Your task to perform on an android device: allow cookies in the chrome app Image 0: 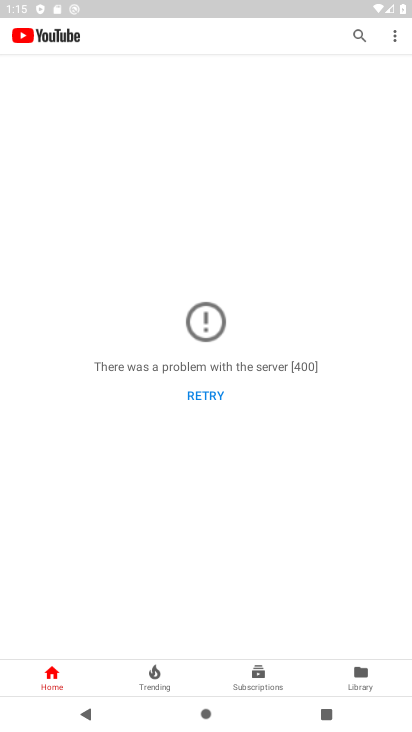
Step 0: press home button
Your task to perform on an android device: allow cookies in the chrome app Image 1: 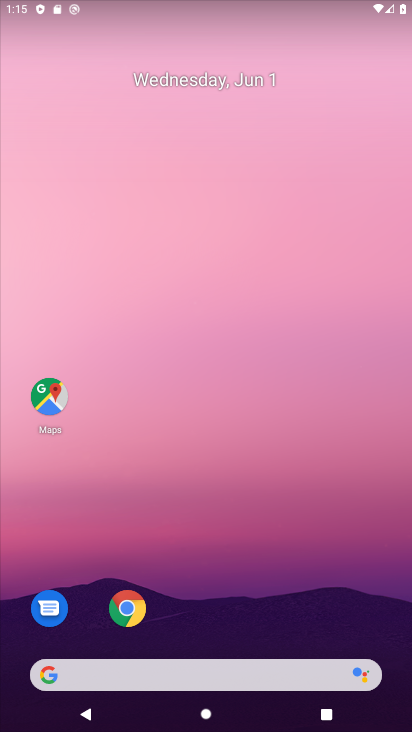
Step 1: click (120, 614)
Your task to perform on an android device: allow cookies in the chrome app Image 2: 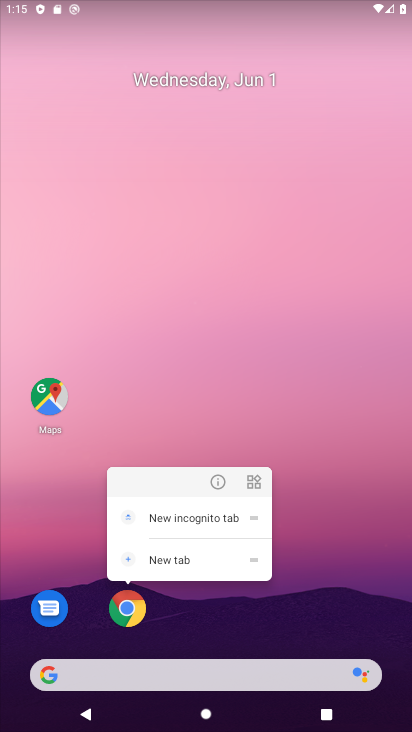
Step 2: click (126, 617)
Your task to perform on an android device: allow cookies in the chrome app Image 3: 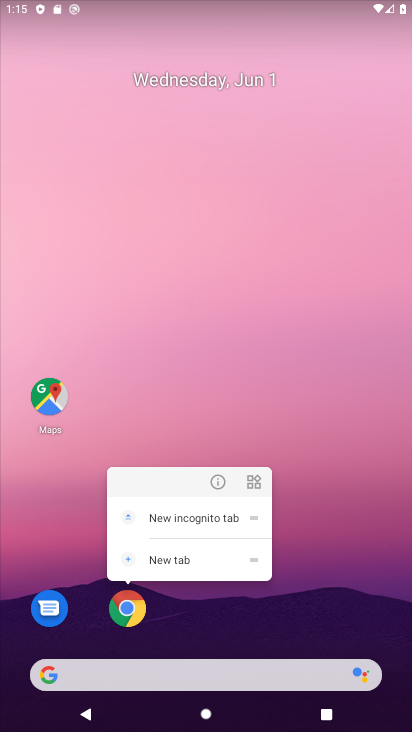
Step 3: click (134, 610)
Your task to perform on an android device: allow cookies in the chrome app Image 4: 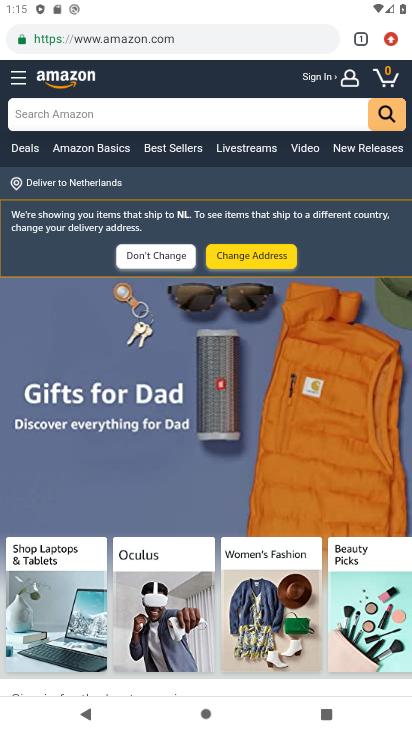
Step 4: click (389, 49)
Your task to perform on an android device: allow cookies in the chrome app Image 5: 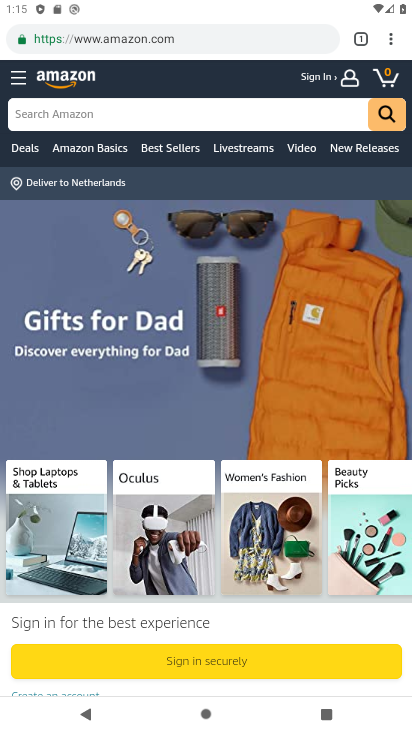
Step 5: click (395, 47)
Your task to perform on an android device: allow cookies in the chrome app Image 6: 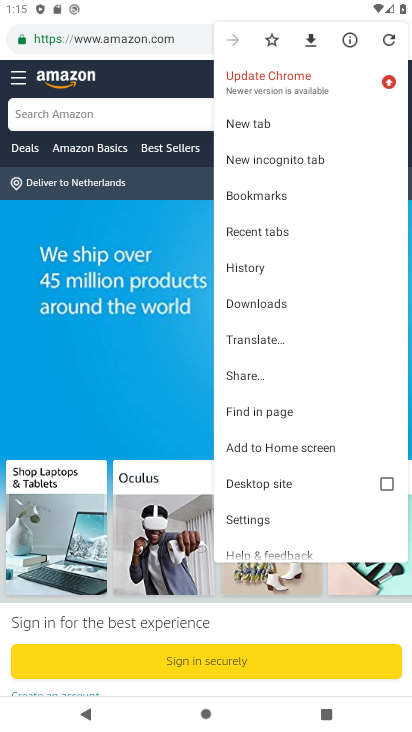
Step 6: click (261, 526)
Your task to perform on an android device: allow cookies in the chrome app Image 7: 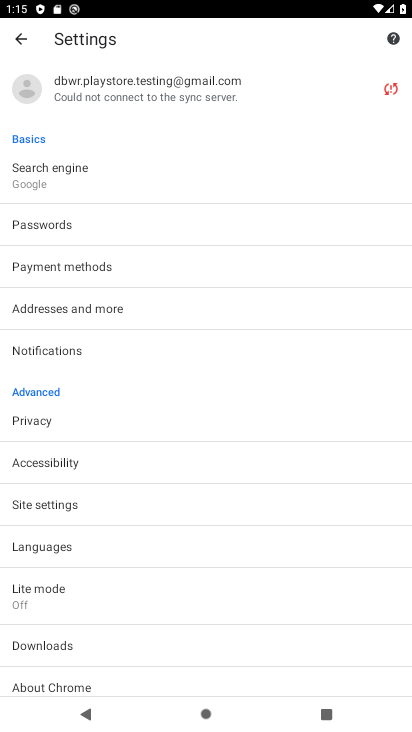
Step 7: click (68, 506)
Your task to perform on an android device: allow cookies in the chrome app Image 8: 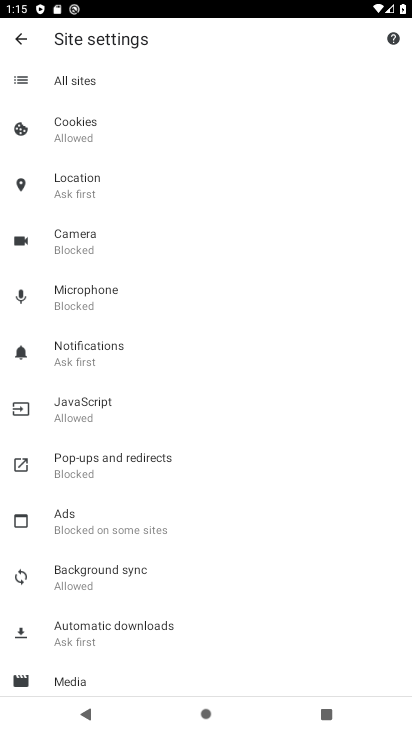
Step 8: click (82, 122)
Your task to perform on an android device: allow cookies in the chrome app Image 9: 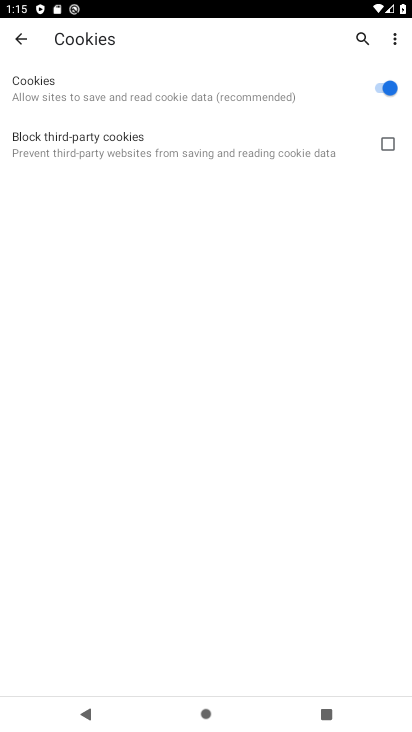
Step 9: task complete